Your task to perform on an android device: Check the news Image 0: 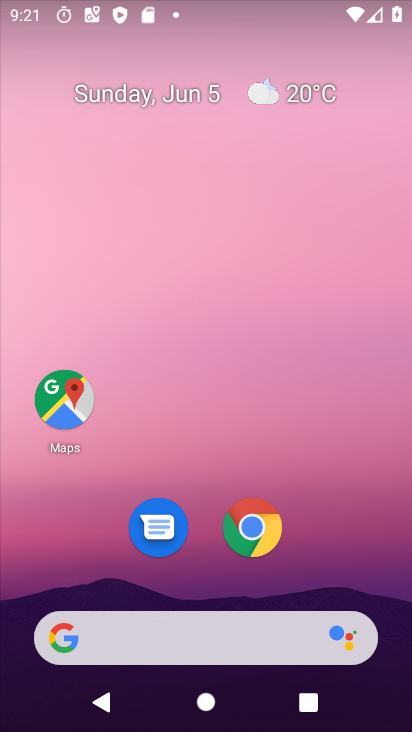
Step 0: drag from (322, 535) to (259, 1)
Your task to perform on an android device: Check the news Image 1: 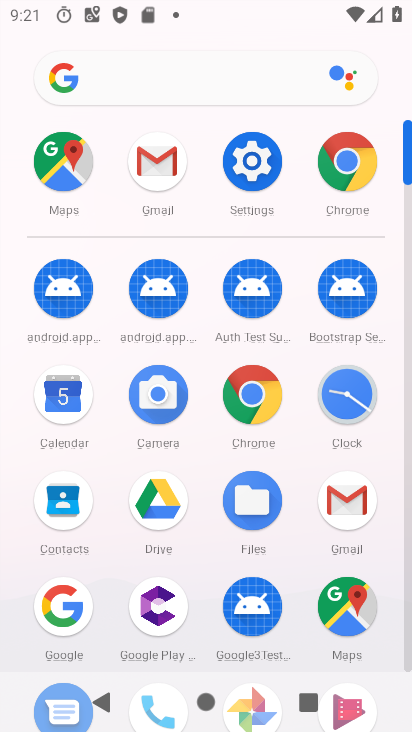
Step 1: click (369, 187)
Your task to perform on an android device: Check the news Image 2: 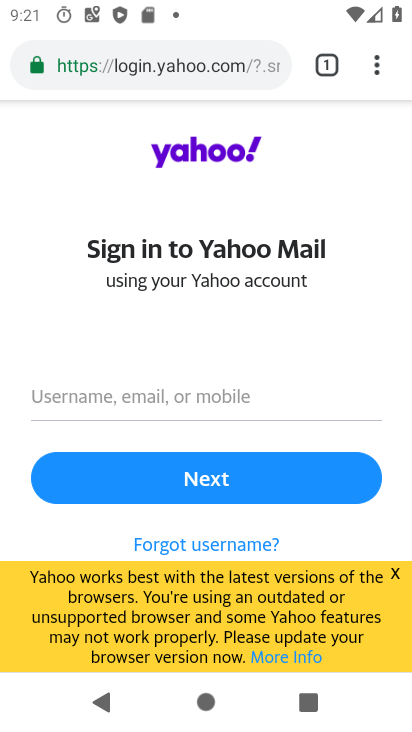
Step 2: task complete